Your task to perform on an android device: Go to wifi settings Image 0: 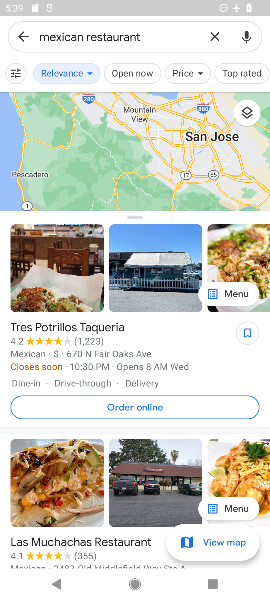
Step 0: press home button
Your task to perform on an android device: Go to wifi settings Image 1: 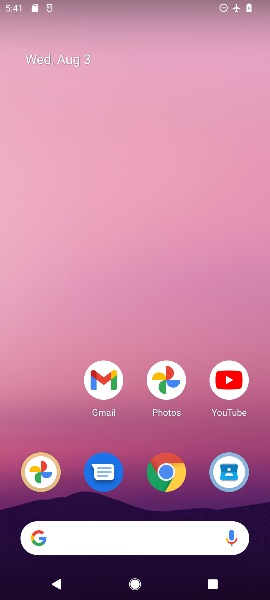
Step 1: drag from (197, 483) to (144, 29)
Your task to perform on an android device: Go to wifi settings Image 2: 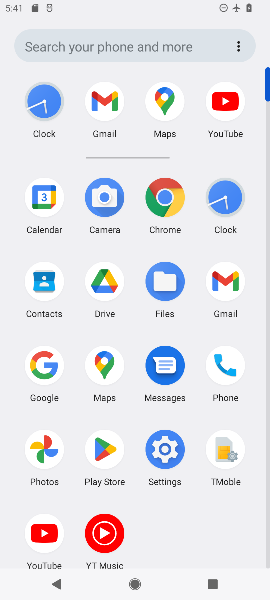
Step 2: click (170, 456)
Your task to perform on an android device: Go to wifi settings Image 3: 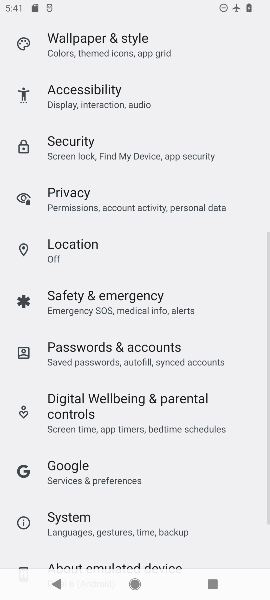
Step 3: drag from (92, 78) to (189, 453)
Your task to perform on an android device: Go to wifi settings Image 4: 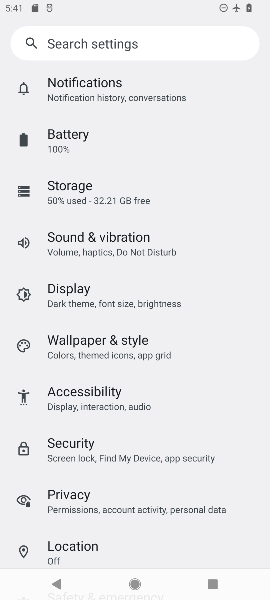
Step 4: drag from (88, 119) to (128, 495)
Your task to perform on an android device: Go to wifi settings Image 5: 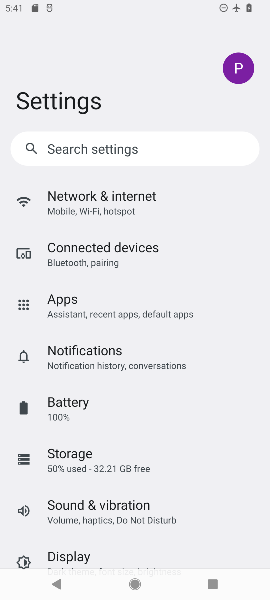
Step 5: click (100, 209)
Your task to perform on an android device: Go to wifi settings Image 6: 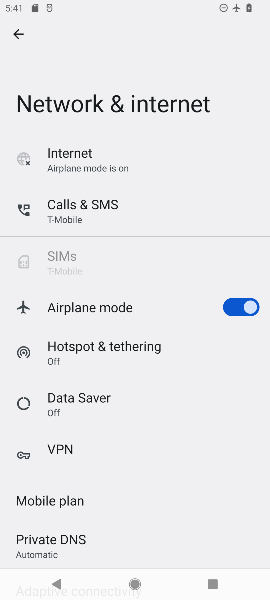
Step 6: task complete